Your task to perform on an android device: Open calendar and show me the second week of next month Image 0: 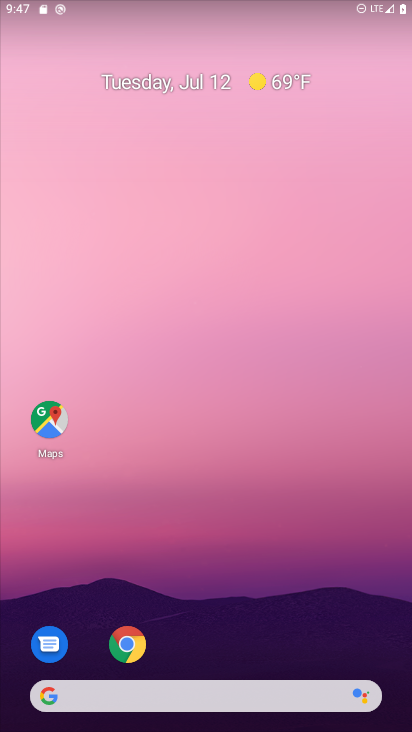
Step 0: press home button
Your task to perform on an android device: Open calendar and show me the second week of next month Image 1: 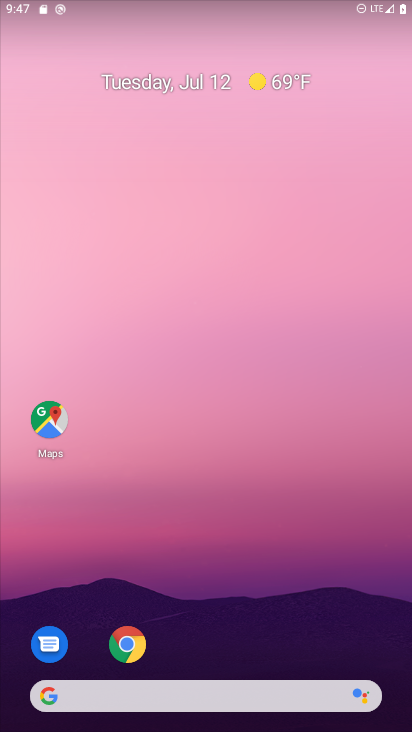
Step 1: drag from (226, 664) to (262, 70)
Your task to perform on an android device: Open calendar and show me the second week of next month Image 2: 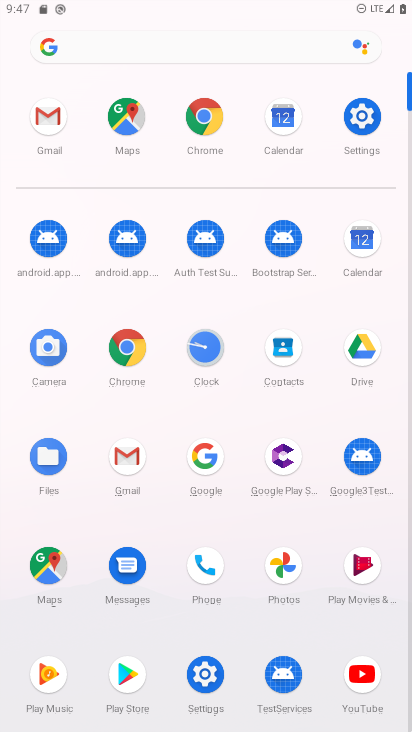
Step 2: click (360, 236)
Your task to perform on an android device: Open calendar and show me the second week of next month Image 3: 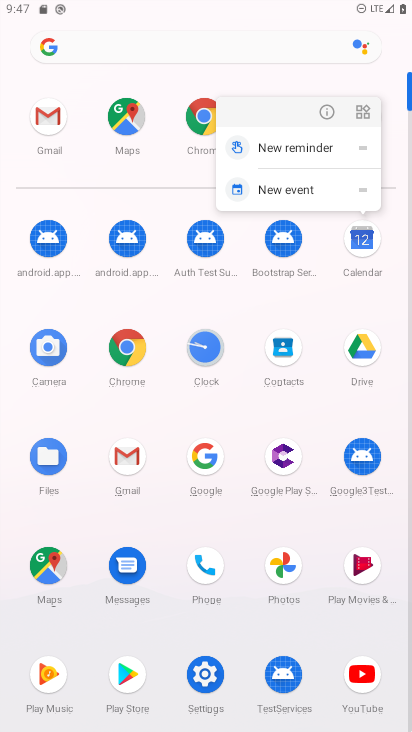
Step 3: click (360, 236)
Your task to perform on an android device: Open calendar and show me the second week of next month Image 4: 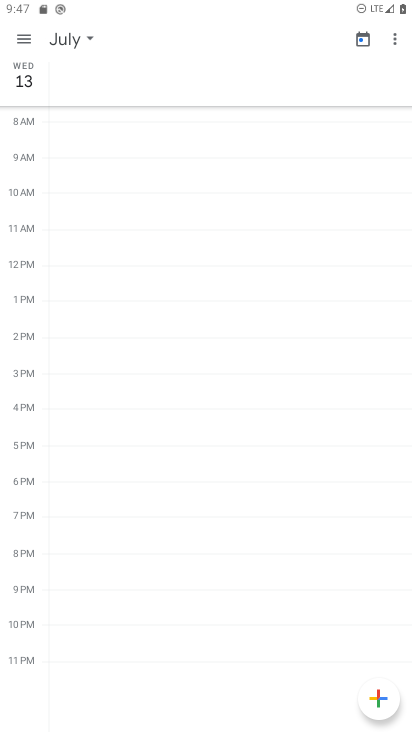
Step 4: click (18, 34)
Your task to perform on an android device: Open calendar and show me the second week of next month Image 5: 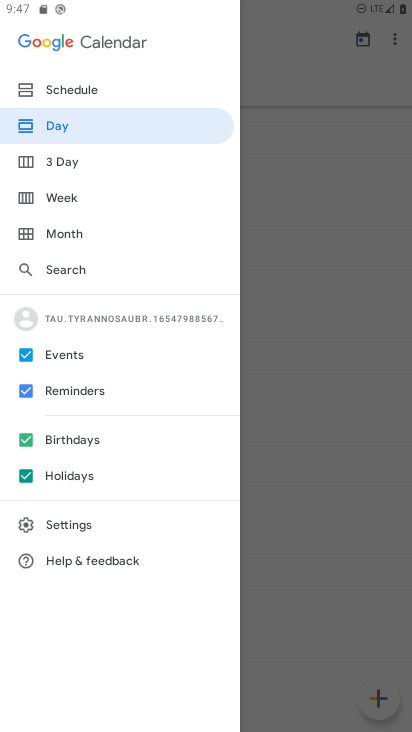
Step 5: click (75, 194)
Your task to perform on an android device: Open calendar and show me the second week of next month Image 6: 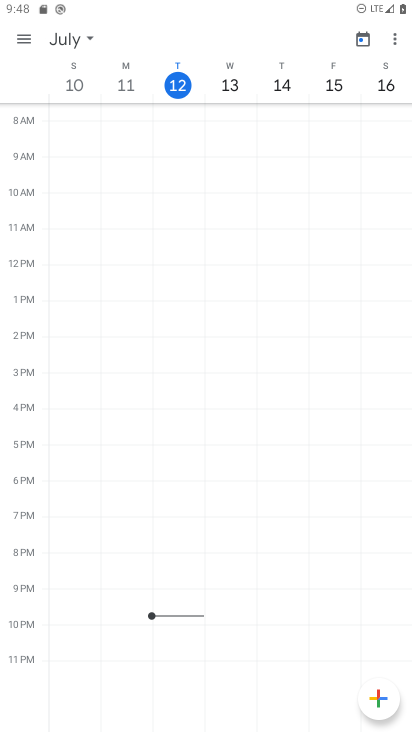
Step 6: drag from (386, 85) to (81, 98)
Your task to perform on an android device: Open calendar and show me the second week of next month Image 7: 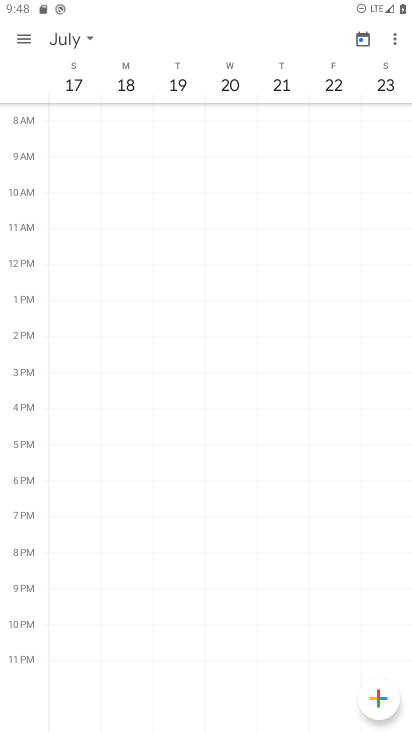
Step 7: drag from (386, 88) to (87, 78)
Your task to perform on an android device: Open calendar and show me the second week of next month Image 8: 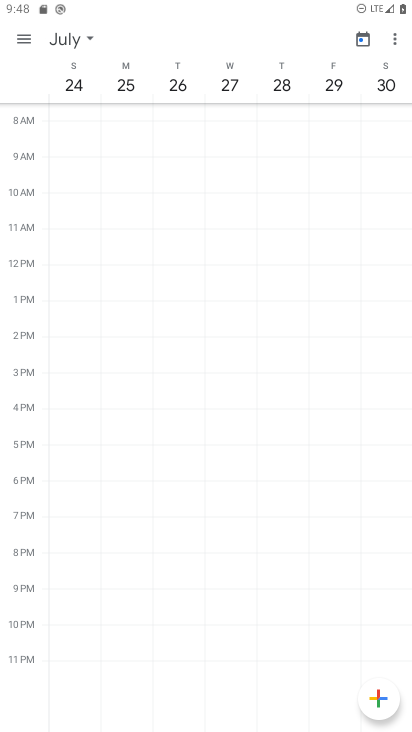
Step 8: drag from (400, 81) to (39, 85)
Your task to perform on an android device: Open calendar and show me the second week of next month Image 9: 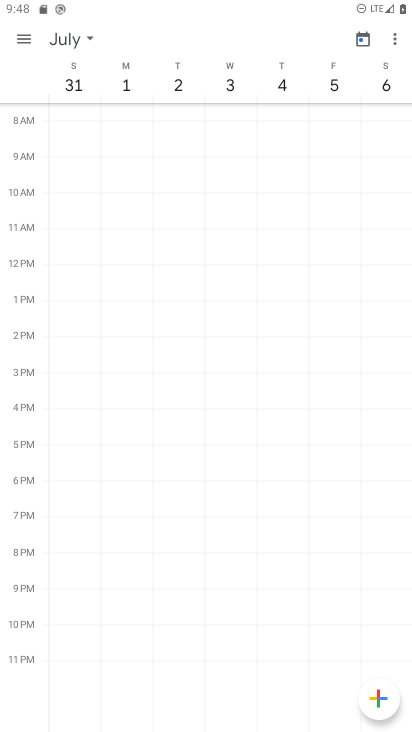
Step 9: drag from (383, 79) to (97, 85)
Your task to perform on an android device: Open calendar and show me the second week of next month Image 10: 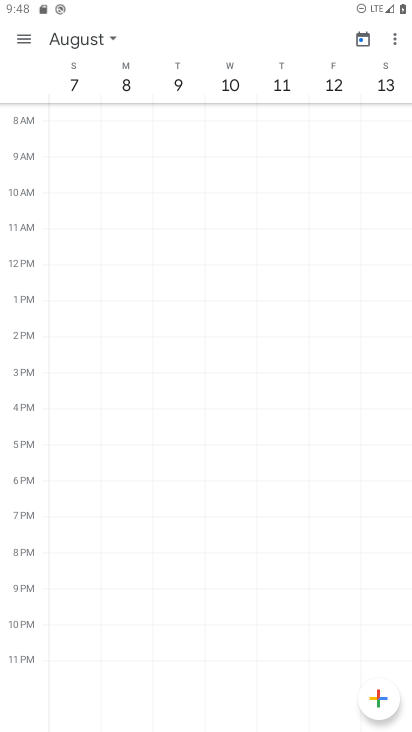
Step 10: click (76, 77)
Your task to perform on an android device: Open calendar and show me the second week of next month Image 11: 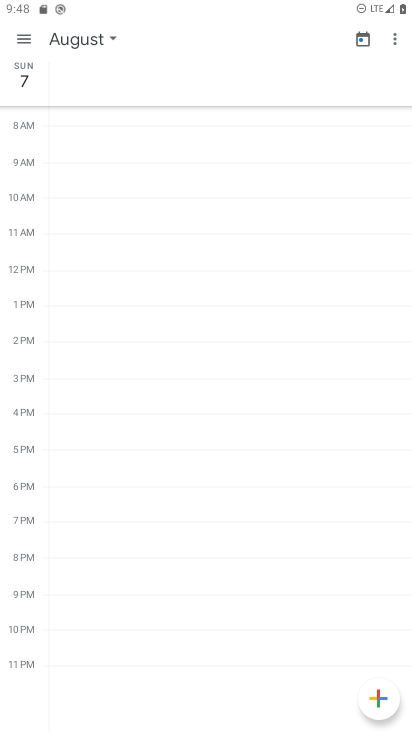
Step 11: click (38, 89)
Your task to perform on an android device: Open calendar and show me the second week of next month Image 12: 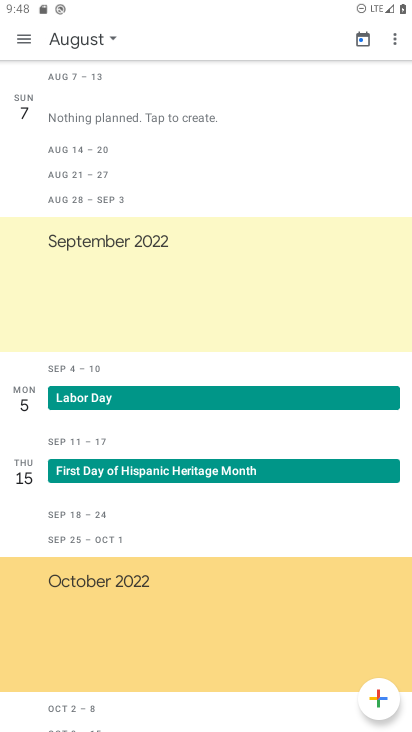
Step 12: task complete